Your task to perform on an android device: turn off sleep mode Image 0: 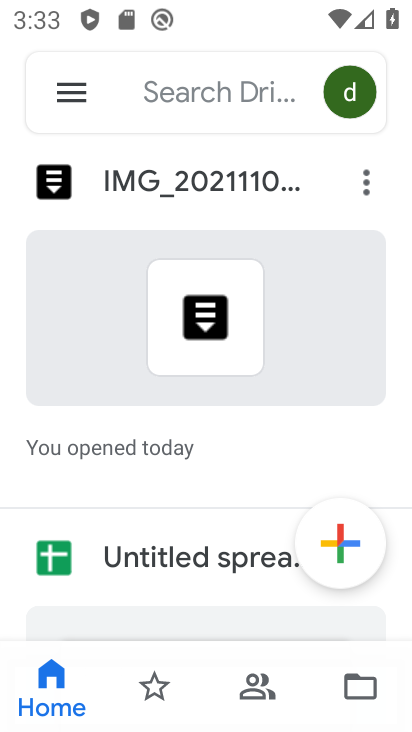
Step 0: press back button
Your task to perform on an android device: turn off sleep mode Image 1: 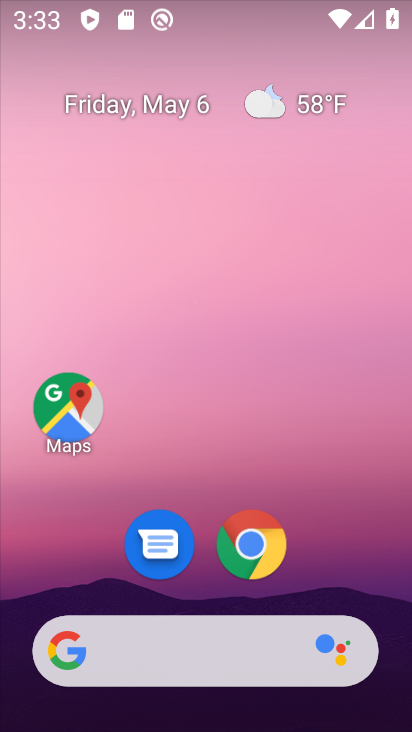
Step 1: drag from (105, 605) to (254, 85)
Your task to perform on an android device: turn off sleep mode Image 2: 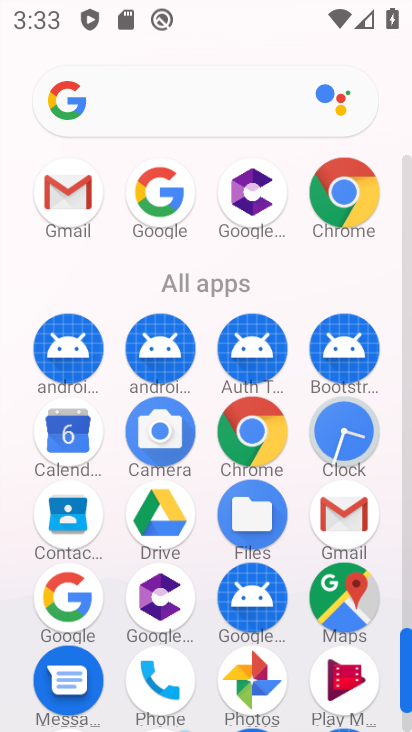
Step 2: drag from (151, 602) to (224, 339)
Your task to perform on an android device: turn off sleep mode Image 3: 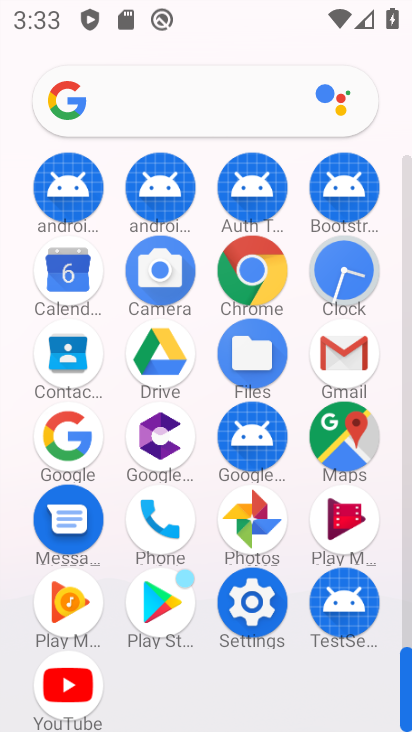
Step 3: click (243, 596)
Your task to perform on an android device: turn off sleep mode Image 4: 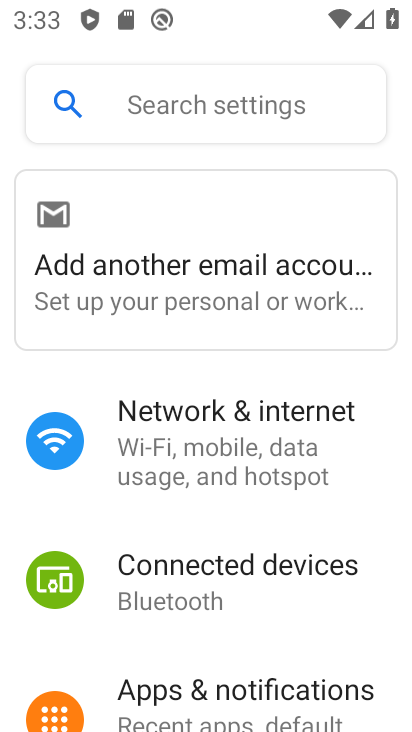
Step 4: drag from (138, 654) to (290, 267)
Your task to perform on an android device: turn off sleep mode Image 5: 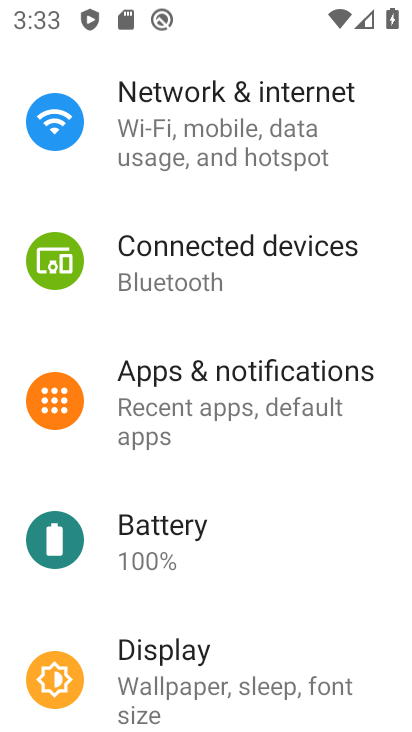
Step 5: drag from (215, 423) to (317, 150)
Your task to perform on an android device: turn off sleep mode Image 6: 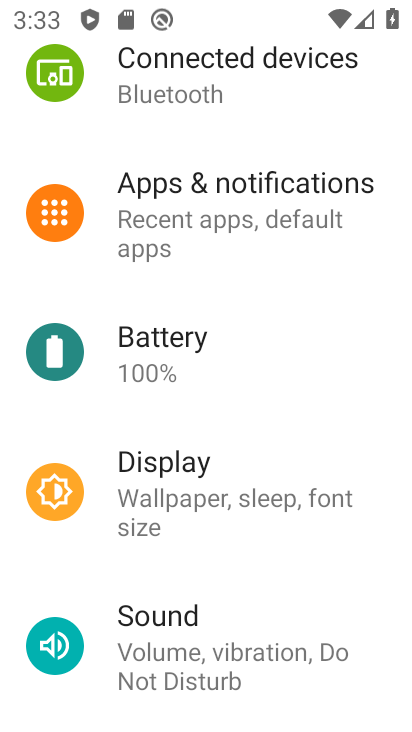
Step 6: click (180, 494)
Your task to perform on an android device: turn off sleep mode Image 7: 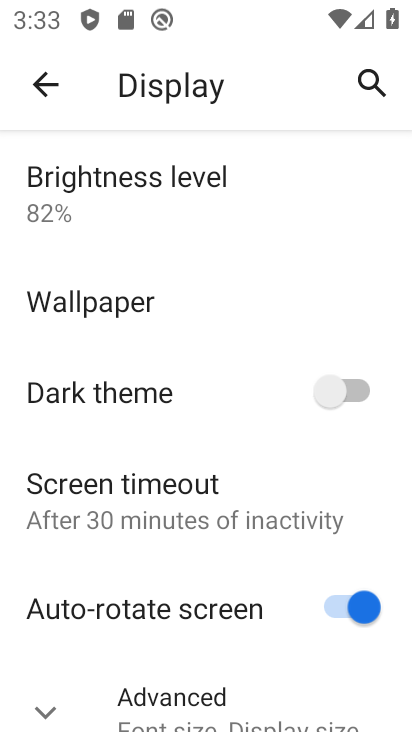
Step 7: click (151, 687)
Your task to perform on an android device: turn off sleep mode Image 8: 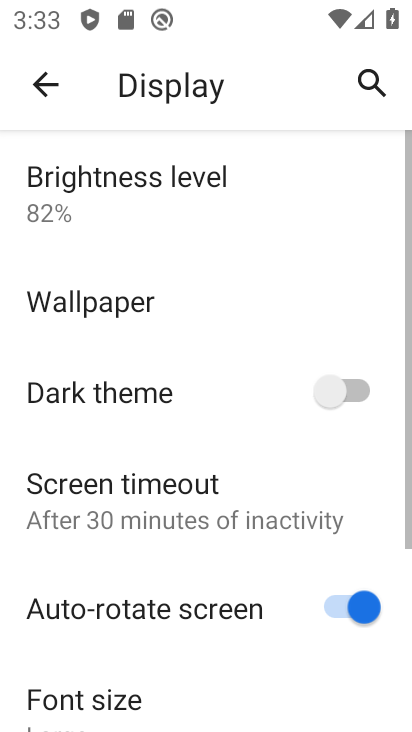
Step 8: task complete